Your task to perform on an android device: Open Wikipedia Image 0: 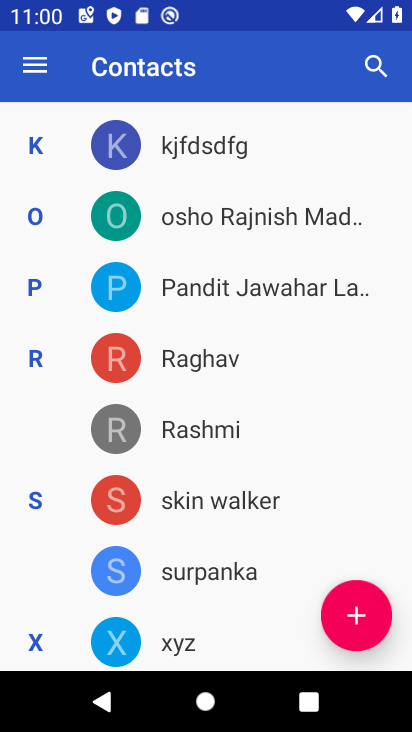
Step 0: press home button
Your task to perform on an android device: Open Wikipedia Image 1: 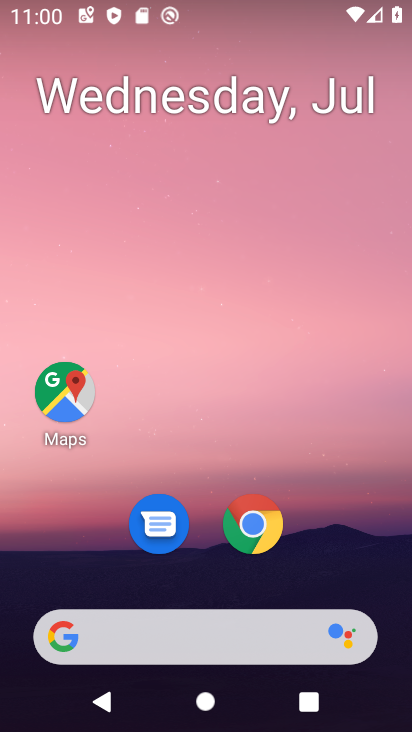
Step 1: drag from (175, 651) to (328, 115)
Your task to perform on an android device: Open Wikipedia Image 2: 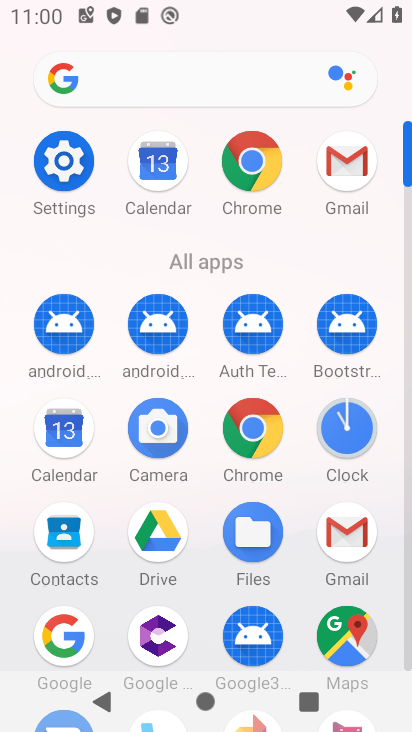
Step 2: click (251, 176)
Your task to perform on an android device: Open Wikipedia Image 3: 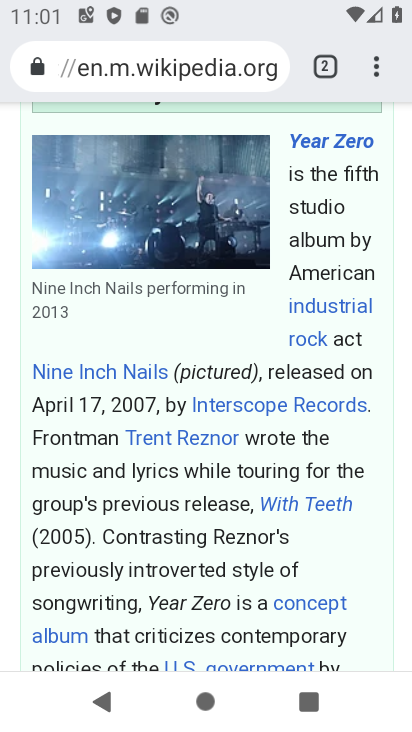
Step 3: task complete